Your task to perform on an android device: toggle notification dots Image 0: 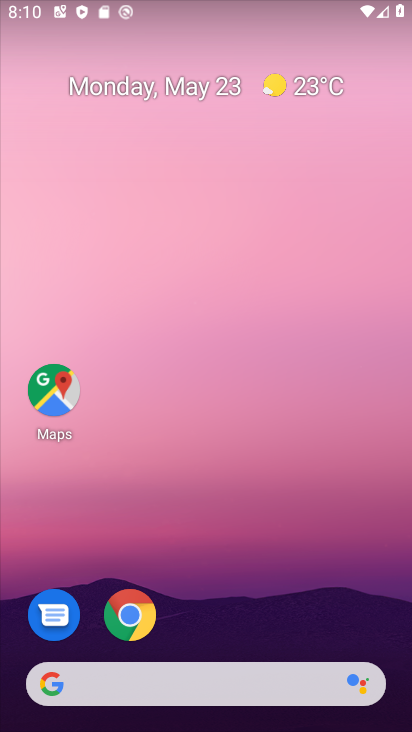
Step 0: drag from (258, 599) to (270, 104)
Your task to perform on an android device: toggle notification dots Image 1: 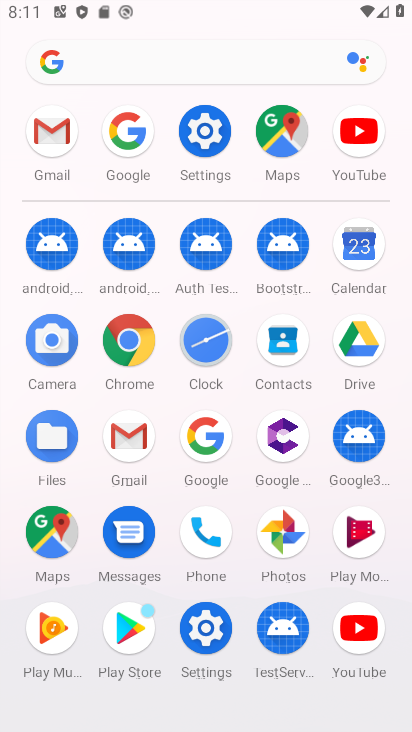
Step 1: click (207, 130)
Your task to perform on an android device: toggle notification dots Image 2: 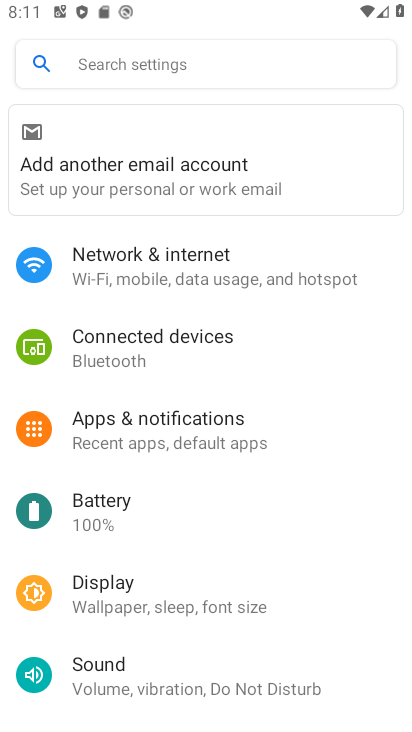
Step 2: click (161, 421)
Your task to perform on an android device: toggle notification dots Image 3: 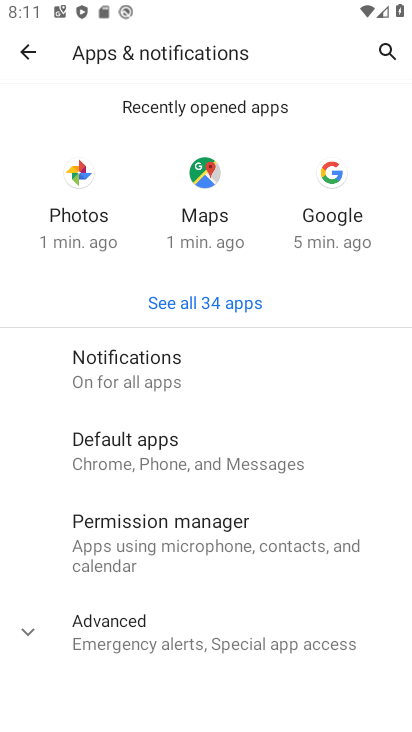
Step 3: click (135, 357)
Your task to perform on an android device: toggle notification dots Image 4: 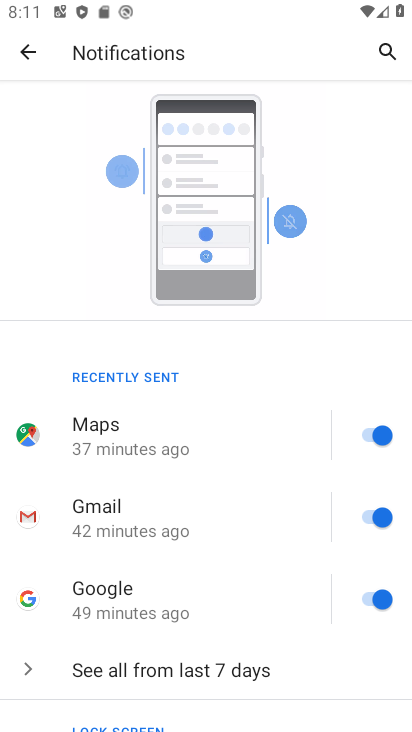
Step 4: drag from (169, 492) to (205, 348)
Your task to perform on an android device: toggle notification dots Image 5: 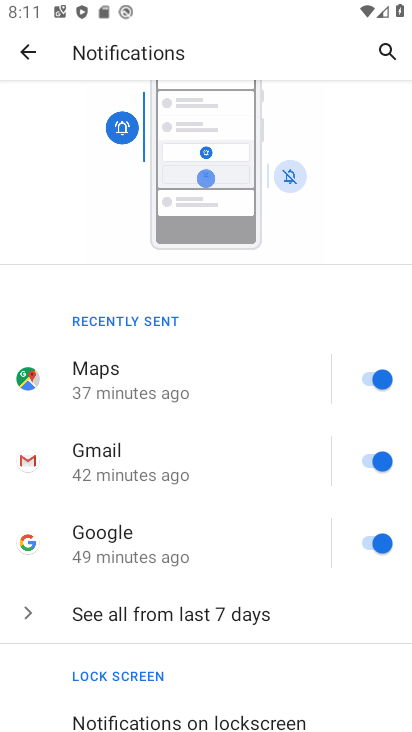
Step 5: drag from (162, 525) to (216, 410)
Your task to perform on an android device: toggle notification dots Image 6: 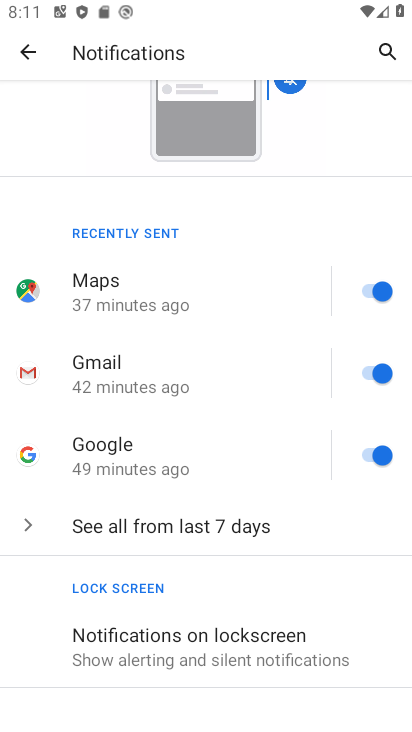
Step 6: drag from (187, 587) to (216, 495)
Your task to perform on an android device: toggle notification dots Image 7: 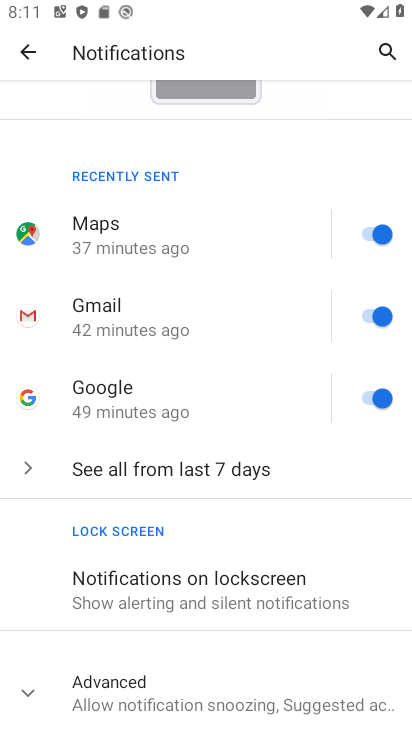
Step 7: click (151, 704)
Your task to perform on an android device: toggle notification dots Image 8: 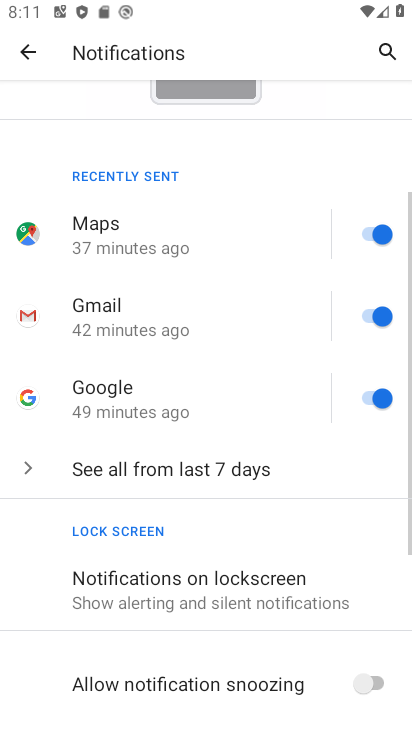
Step 8: drag from (151, 704) to (209, 604)
Your task to perform on an android device: toggle notification dots Image 9: 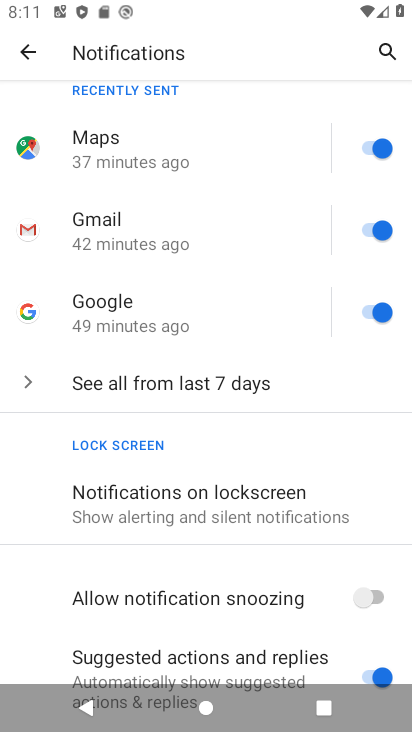
Step 9: drag from (189, 626) to (233, 512)
Your task to perform on an android device: toggle notification dots Image 10: 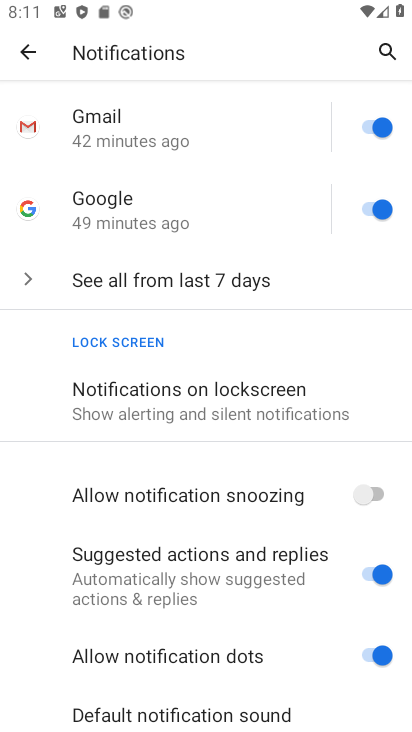
Step 10: drag from (174, 612) to (235, 483)
Your task to perform on an android device: toggle notification dots Image 11: 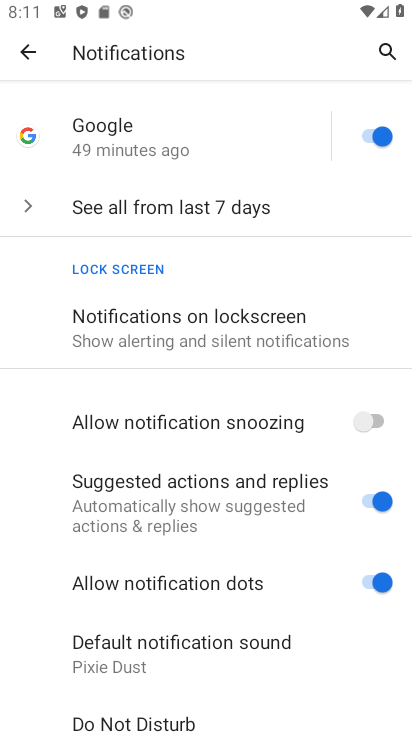
Step 11: click (372, 579)
Your task to perform on an android device: toggle notification dots Image 12: 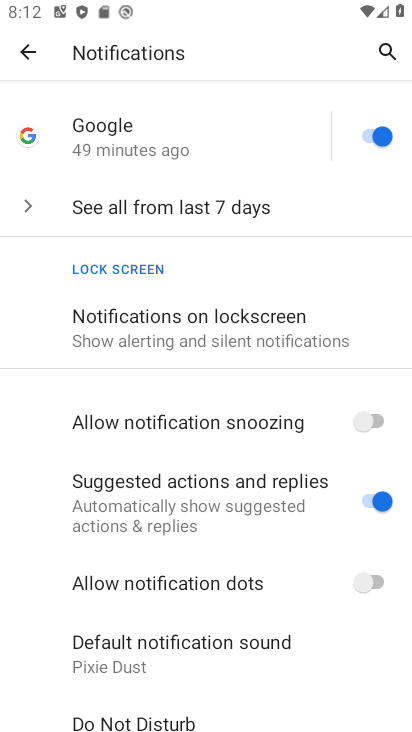
Step 12: task complete